Your task to perform on an android device: set the timer Image 0: 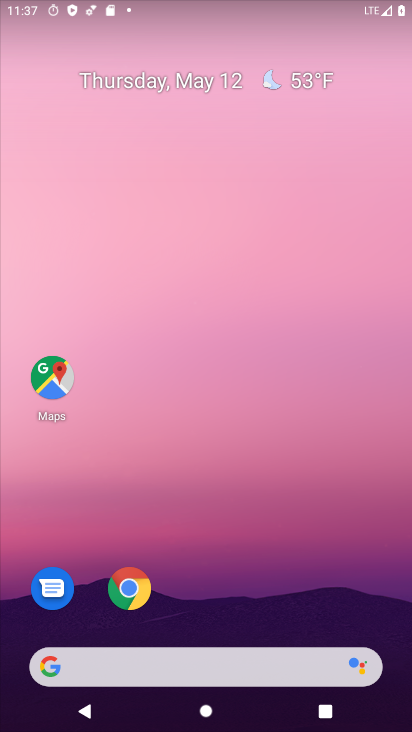
Step 0: drag from (185, 564) to (159, 286)
Your task to perform on an android device: set the timer Image 1: 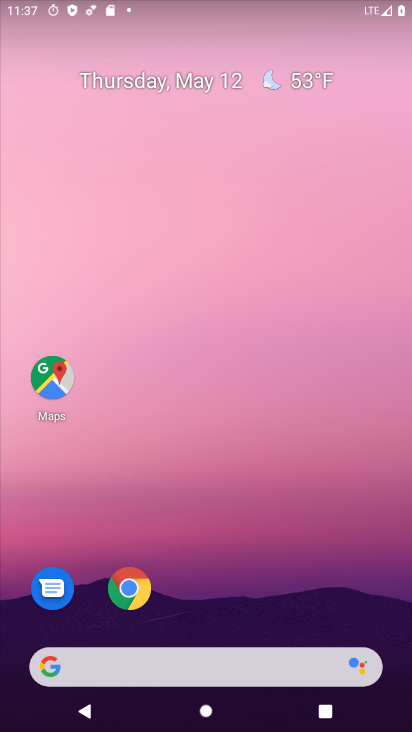
Step 1: drag from (192, 400) to (214, 65)
Your task to perform on an android device: set the timer Image 2: 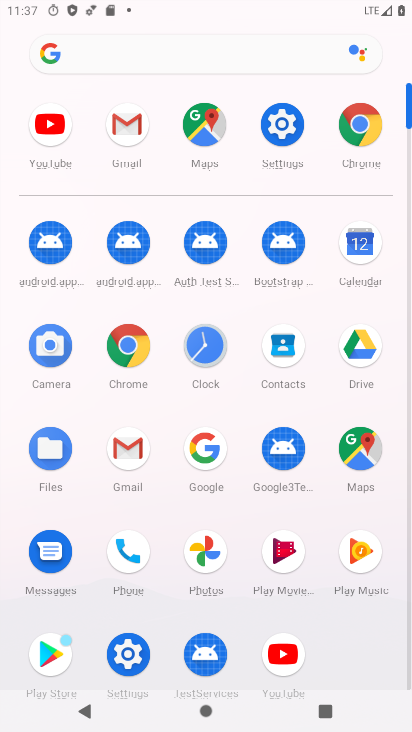
Step 2: click (209, 344)
Your task to perform on an android device: set the timer Image 3: 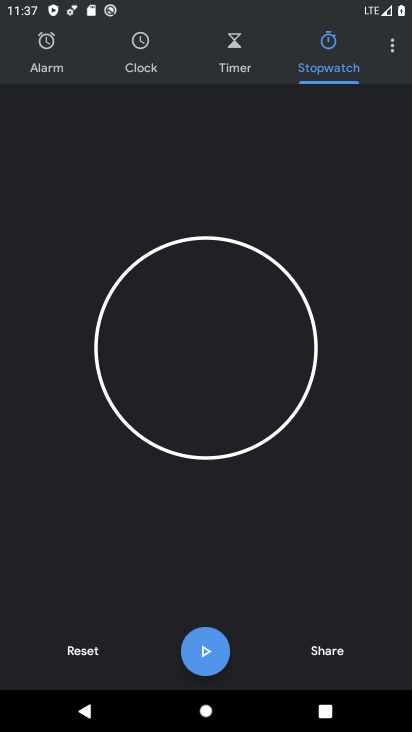
Step 3: click (244, 69)
Your task to perform on an android device: set the timer Image 4: 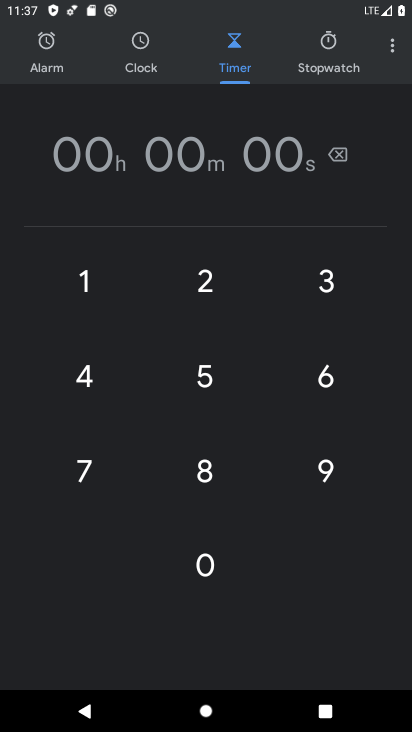
Step 4: click (194, 395)
Your task to perform on an android device: set the timer Image 5: 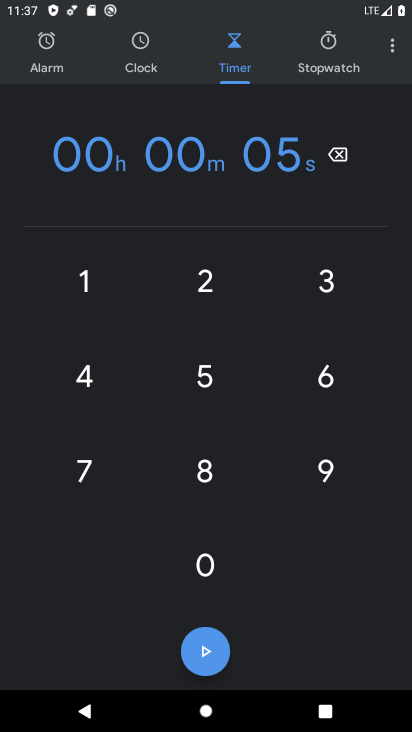
Step 5: task complete